Your task to perform on an android device: Open internet settings Image 0: 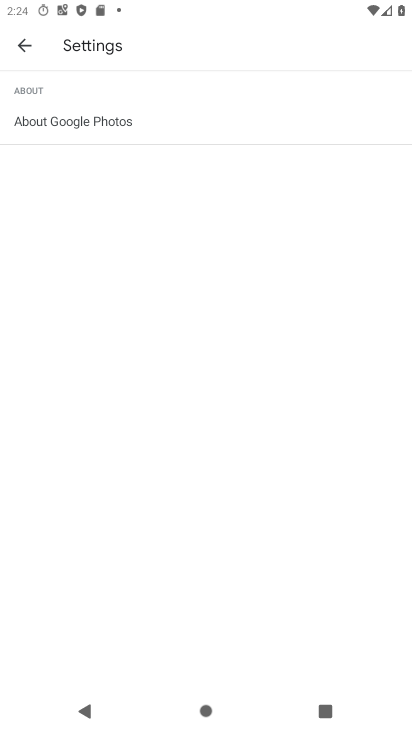
Step 0: press home button
Your task to perform on an android device: Open internet settings Image 1: 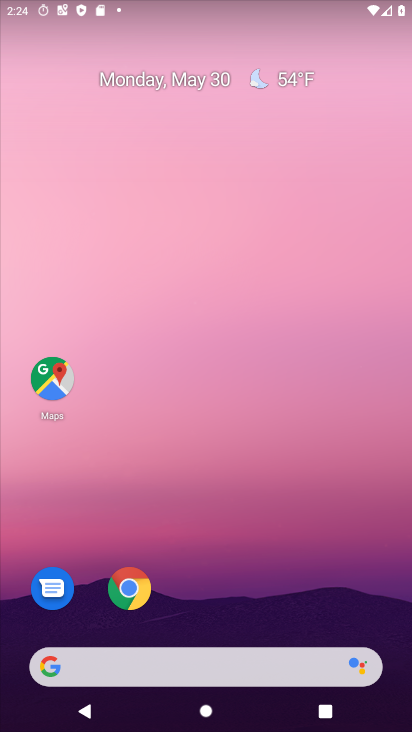
Step 1: drag from (296, 594) to (320, 66)
Your task to perform on an android device: Open internet settings Image 2: 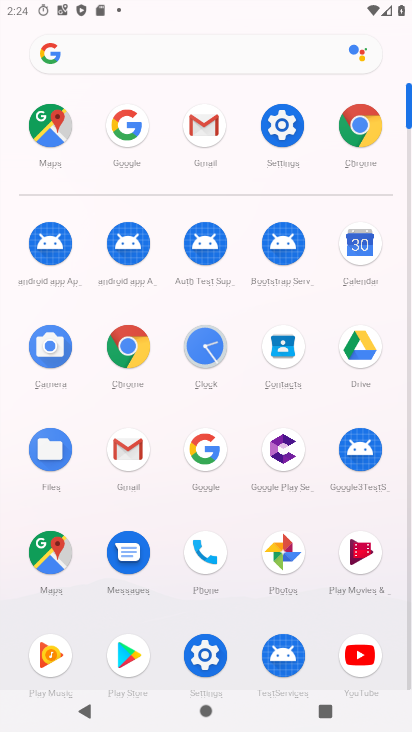
Step 2: click (290, 117)
Your task to perform on an android device: Open internet settings Image 3: 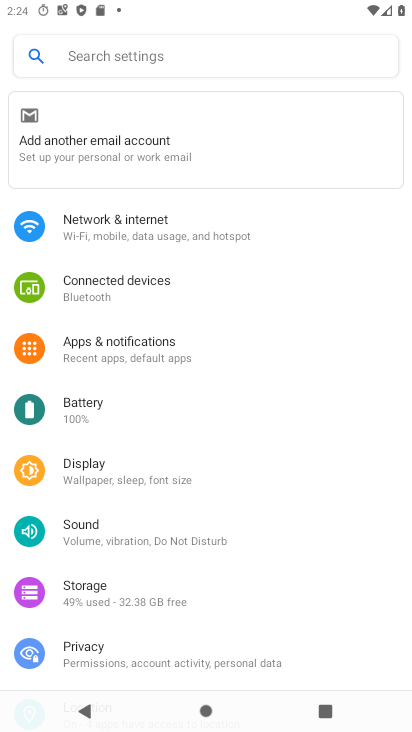
Step 3: click (144, 238)
Your task to perform on an android device: Open internet settings Image 4: 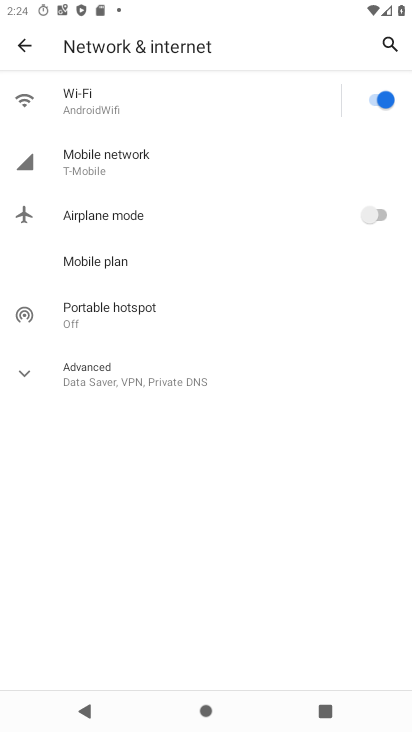
Step 4: click (102, 92)
Your task to perform on an android device: Open internet settings Image 5: 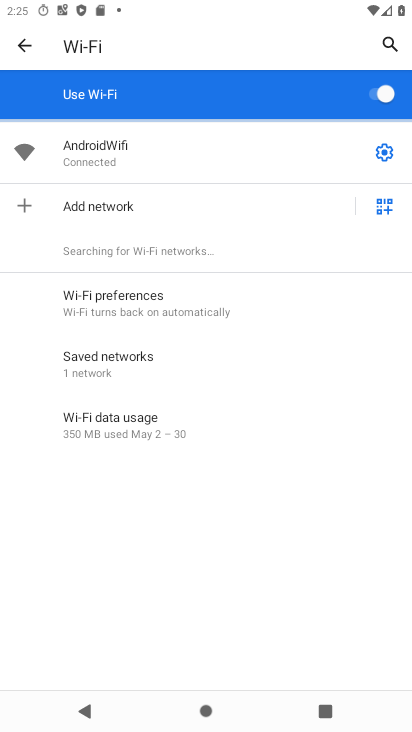
Step 5: click (166, 157)
Your task to perform on an android device: Open internet settings Image 6: 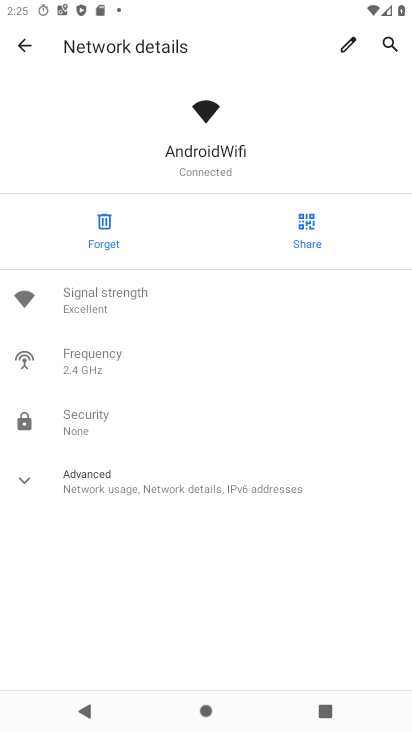
Step 6: task complete